Your task to perform on an android device: install app "HBO Max: Stream TV & Movies" Image 0: 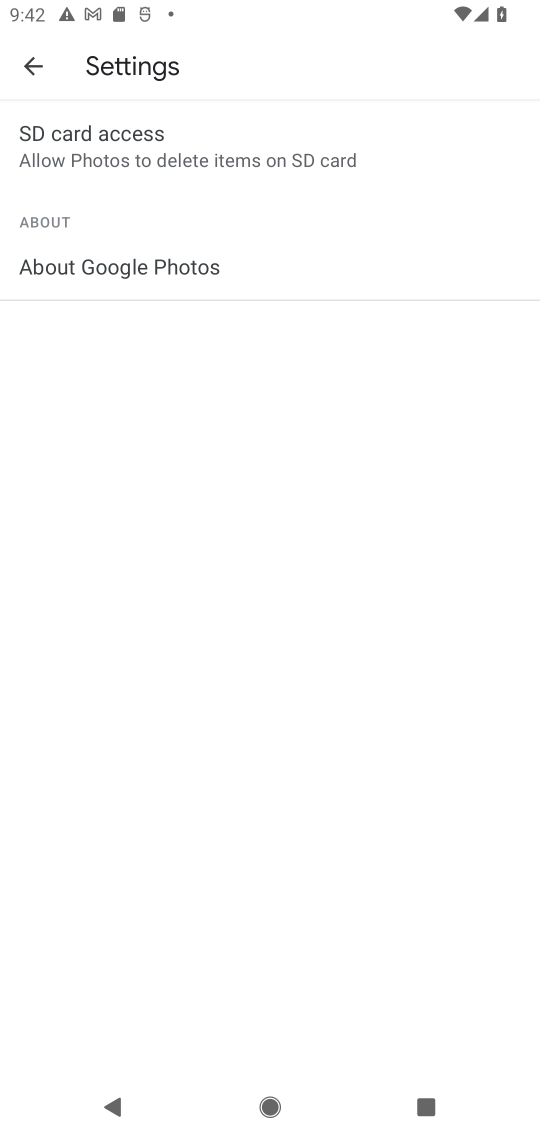
Step 0: press home button
Your task to perform on an android device: install app "HBO Max: Stream TV & Movies" Image 1: 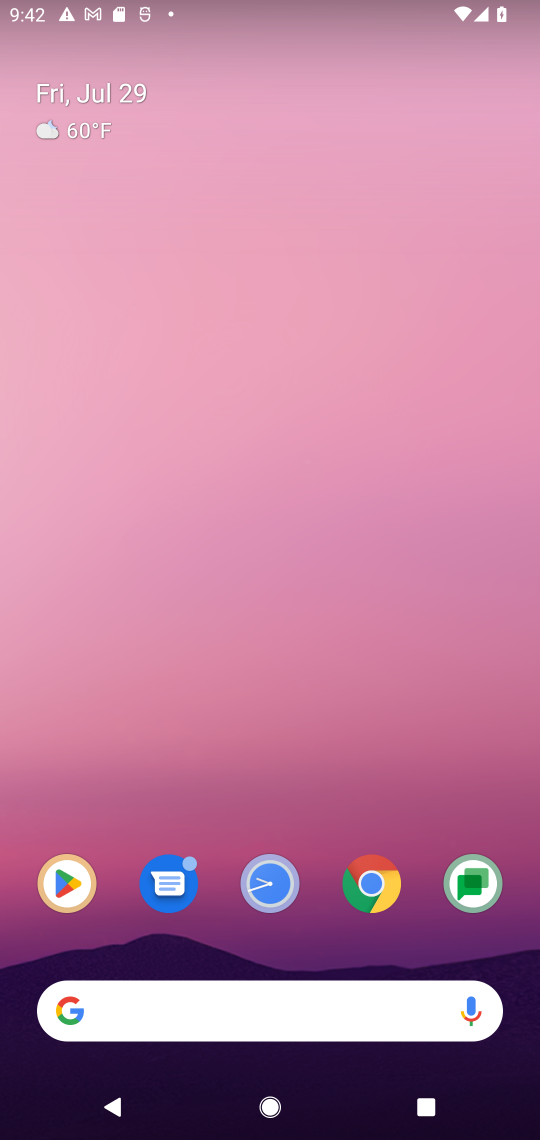
Step 1: click (53, 869)
Your task to perform on an android device: install app "HBO Max: Stream TV & Movies" Image 2: 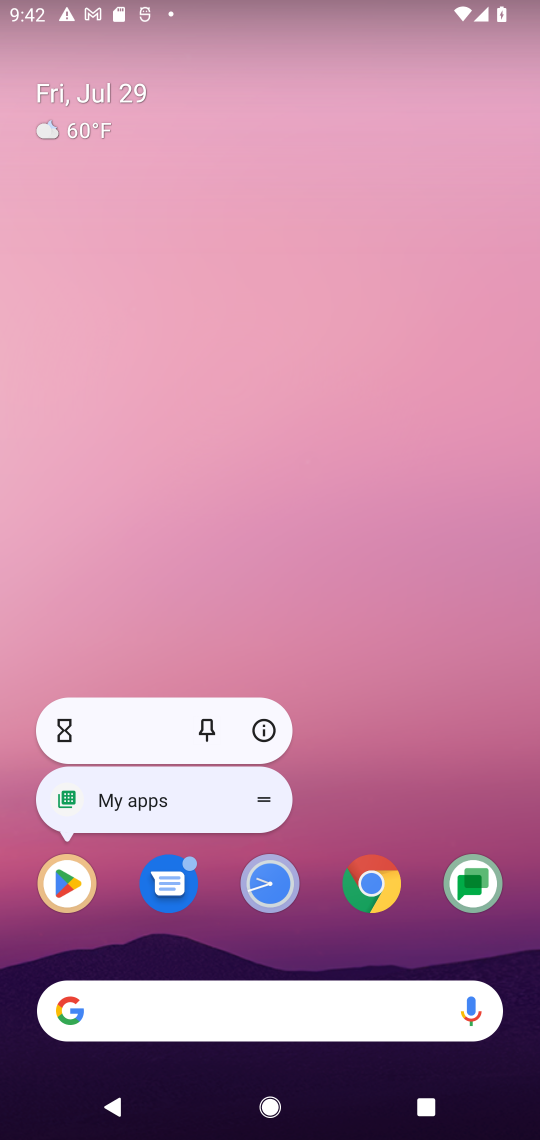
Step 2: click (62, 880)
Your task to perform on an android device: install app "HBO Max: Stream TV & Movies" Image 3: 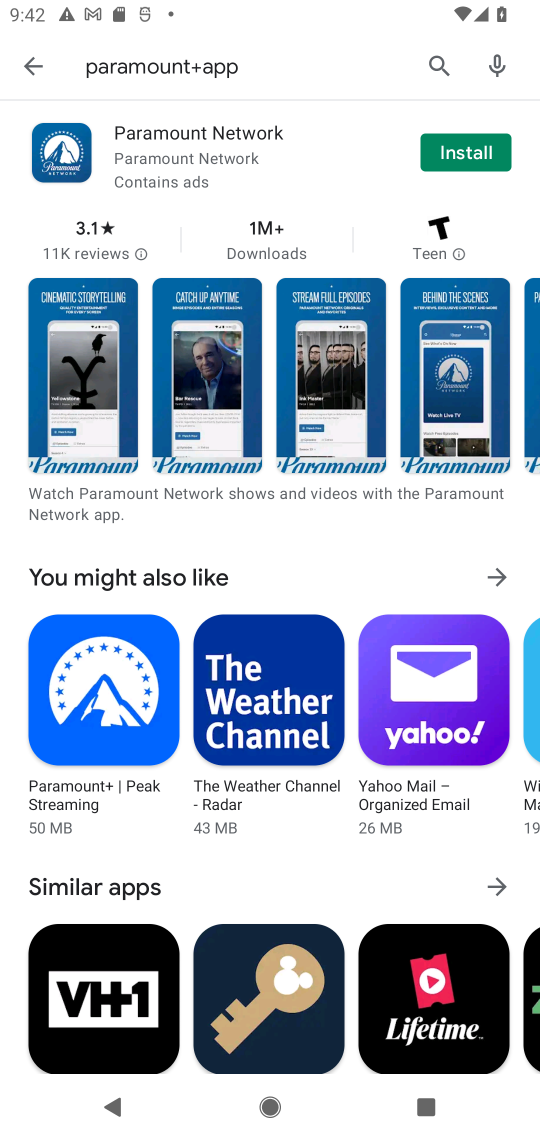
Step 3: click (203, 64)
Your task to perform on an android device: install app "HBO Max: Stream TV & Movies" Image 4: 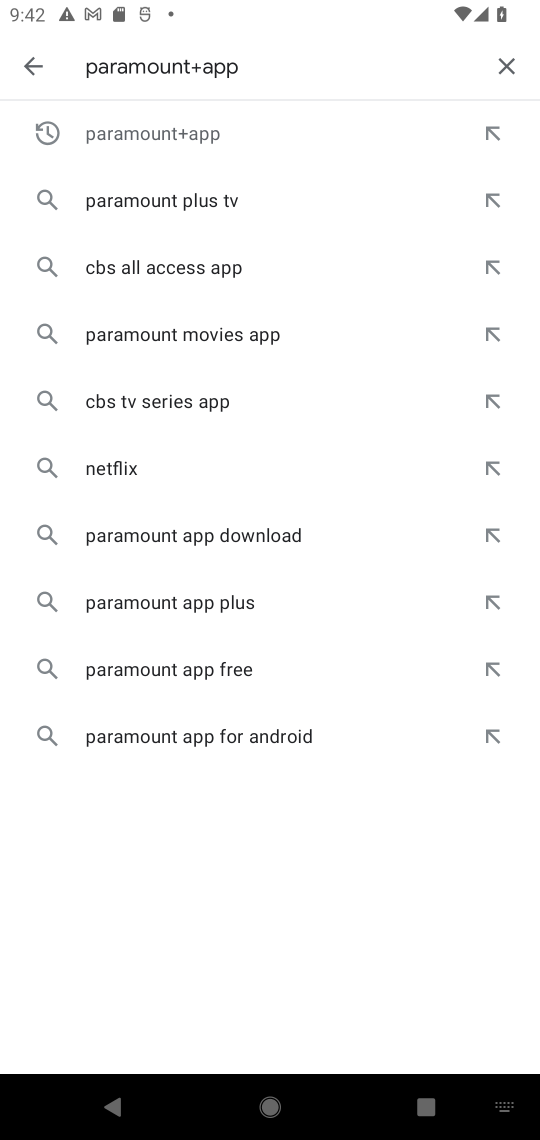
Step 4: click (496, 54)
Your task to perform on an android device: install app "HBO Max: Stream TV & Movies" Image 5: 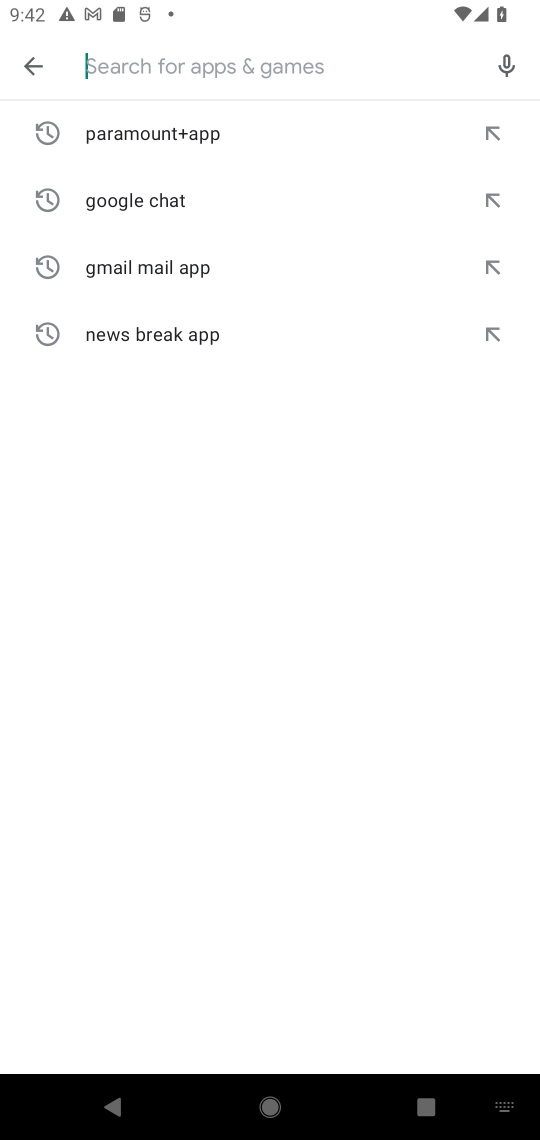
Step 5: type "HBO Max"
Your task to perform on an android device: install app "HBO Max: Stream TV & Movies" Image 6: 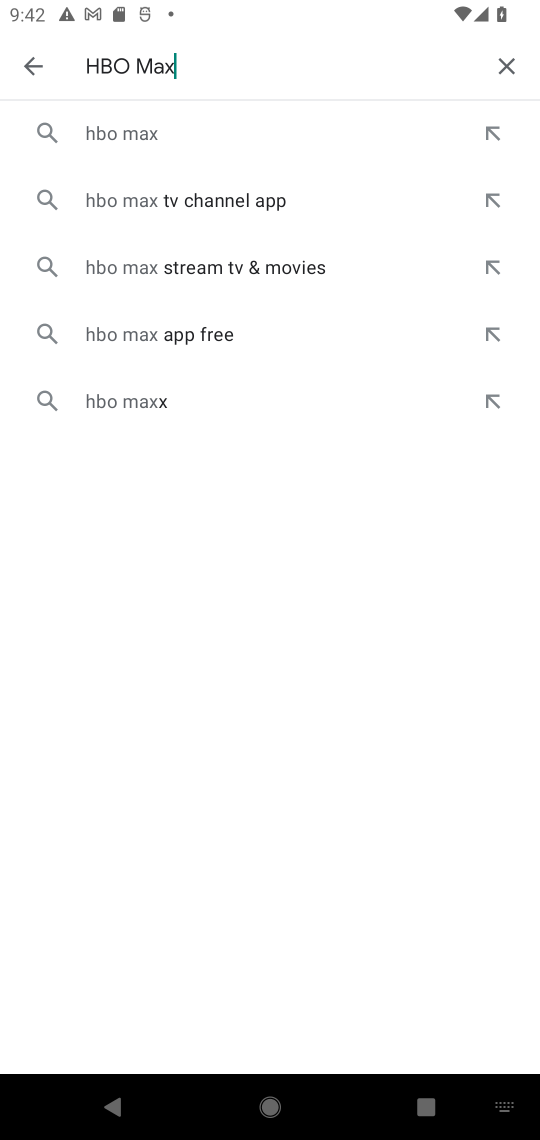
Step 6: click (153, 131)
Your task to perform on an android device: install app "HBO Max: Stream TV & Movies" Image 7: 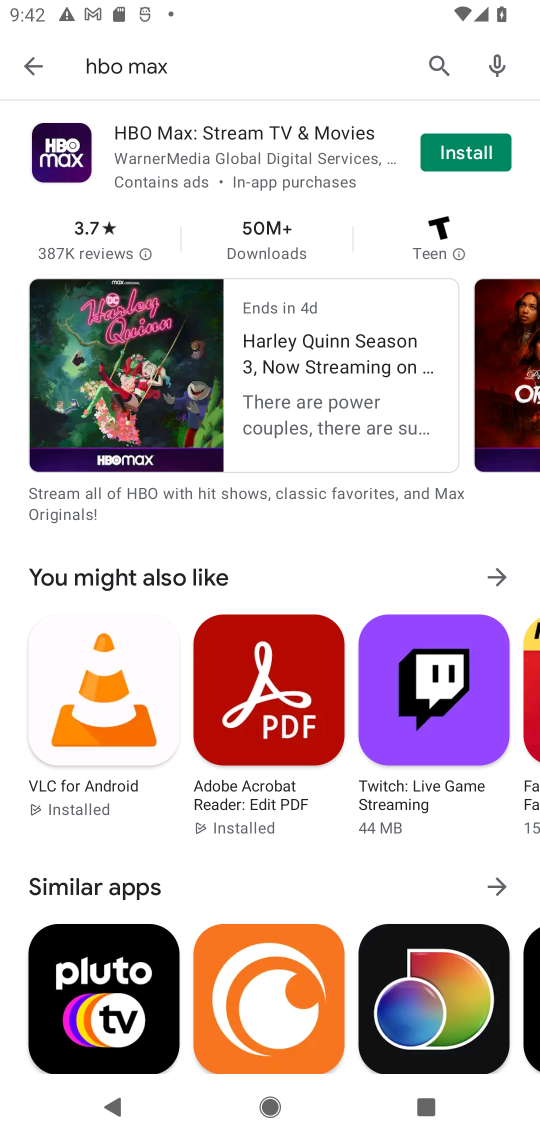
Step 7: click (446, 151)
Your task to perform on an android device: install app "HBO Max: Stream TV & Movies" Image 8: 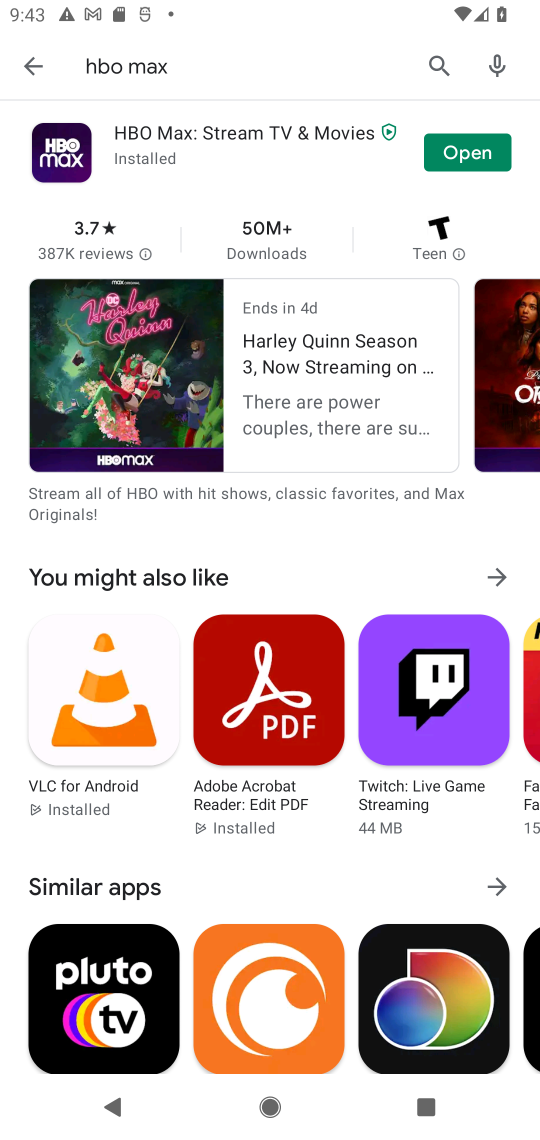
Step 8: task complete